Your task to perform on an android device: Go to internet settings Image 0: 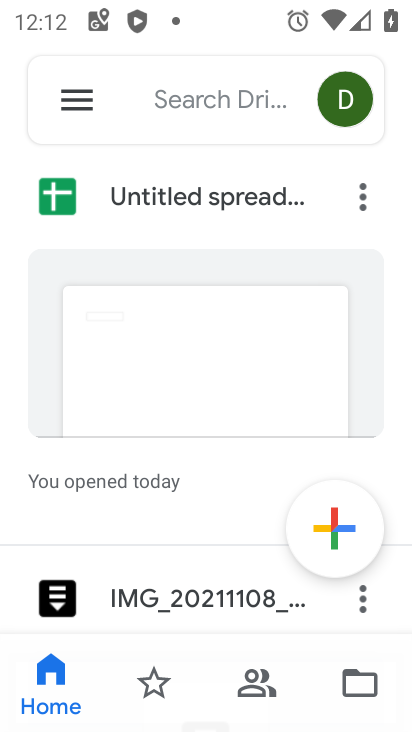
Step 0: press home button
Your task to perform on an android device: Go to internet settings Image 1: 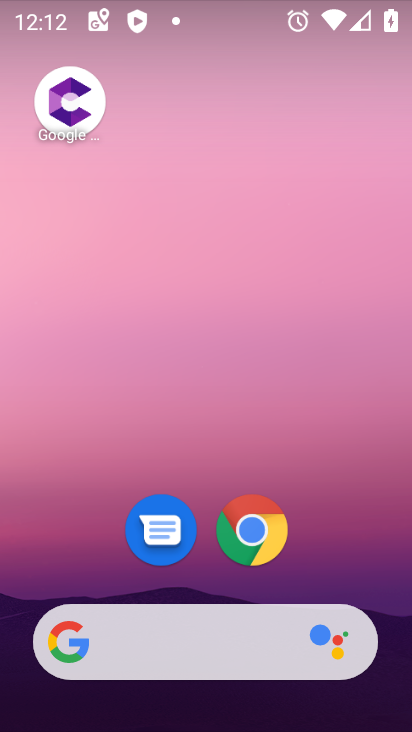
Step 1: drag from (214, 579) to (269, 251)
Your task to perform on an android device: Go to internet settings Image 2: 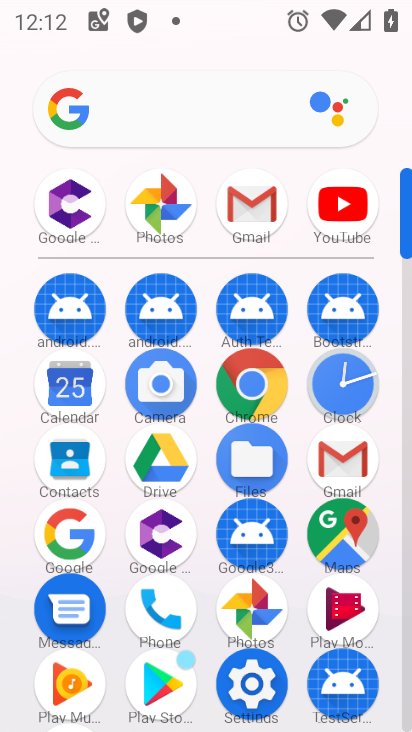
Step 2: click (255, 678)
Your task to perform on an android device: Go to internet settings Image 3: 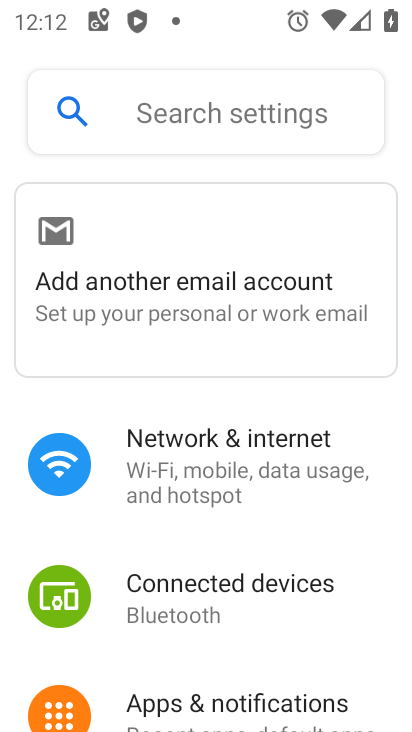
Step 3: click (185, 464)
Your task to perform on an android device: Go to internet settings Image 4: 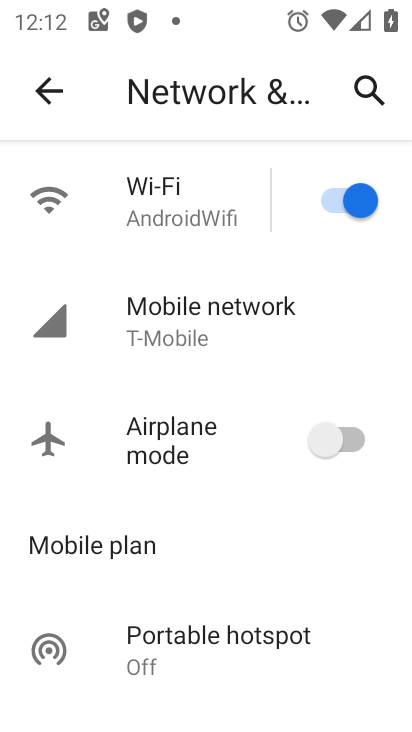
Step 4: drag from (215, 493) to (248, 514)
Your task to perform on an android device: Go to internet settings Image 5: 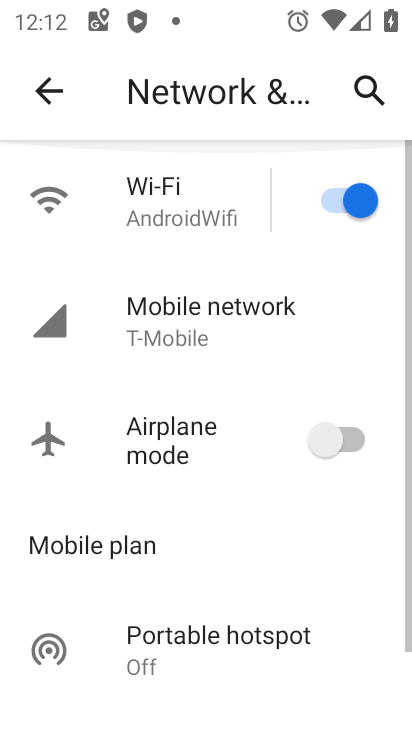
Step 5: click (194, 201)
Your task to perform on an android device: Go to internet settings Image 6: 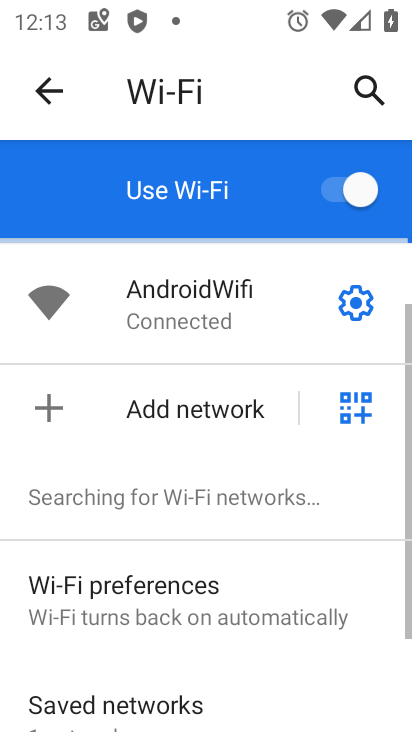
Step 6: task complete